Your task to perform on an android device: Clear all items from cart on target.com. Search for "jbl charge 4" on target.com, select the first entry, add it to the cart, then select checkout. Image 0: 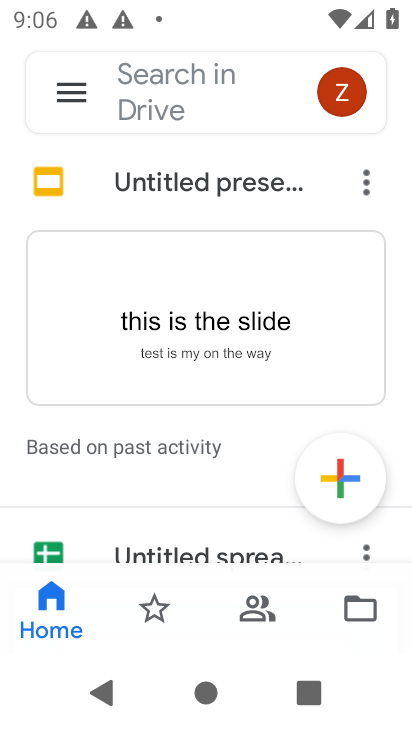
Step 0: press home button
Your task to perform on an android device: Clear all items from cart on target.com. Search for "jbl charge 4" on target.com, select the first entry, add it to the cart, then select checkout. Image 1: 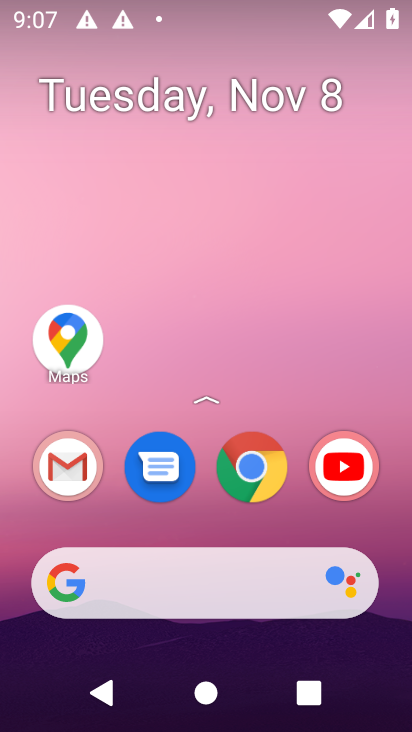
Step 1: click (246, 582)
Your task to perform on an android device: Clear all items from cart on target.com. Search for "jbl charge 4" on target.com, select the first entry, add it to the cart, then select checkout. Image 2: 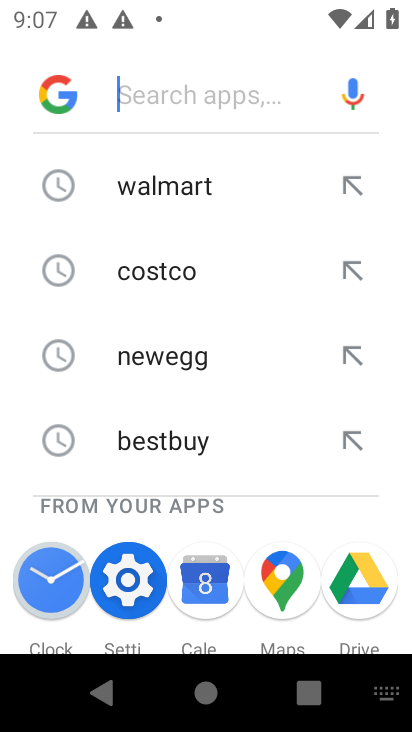
Step 2: type "target"
Your task to perform on an android device: Clear all items from cart on target.com. Search for "jbl charge 4" on target.com, select the first entry, add it to the cart, then select checkout. Image 3: 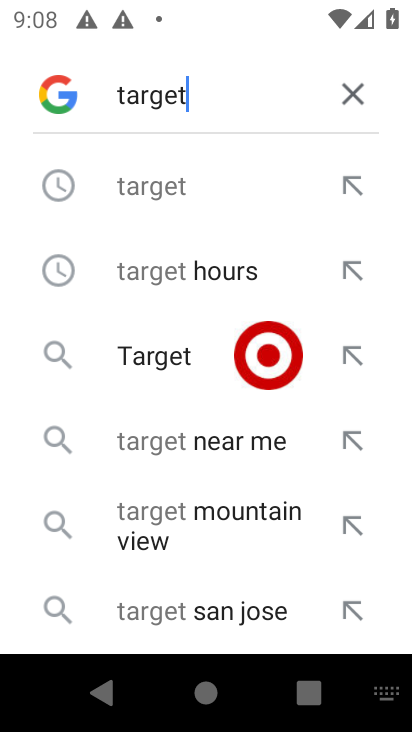
Step 3: click (244, 168)
Your task to perform on an android device: Clear all items from cart on target.com. Search for "jbl charge 4" on target.com, select the first entry, add it to the cart, then select checkout. Image 4: 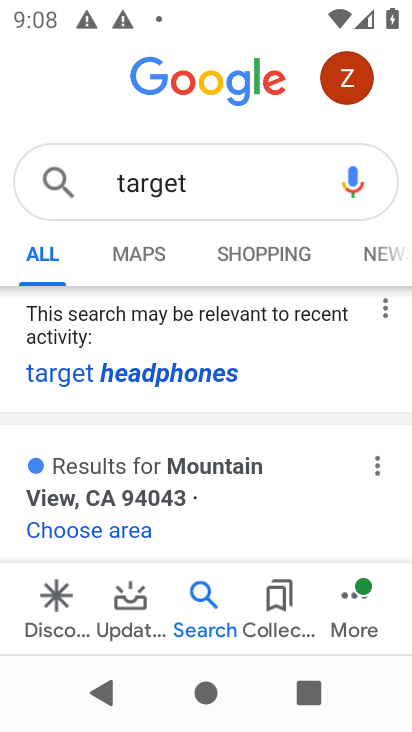
Step 4: task complete